Your task to perform on an android device: uninstall "DuckDuckGo Privacy Browser" Image 0: 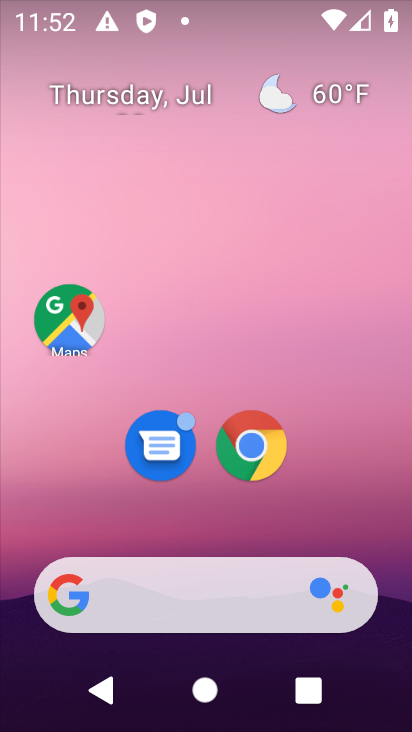
Step 0: drag from (354, 500) to (408, 2)
Your task to perform on an android device: uninstall "DuckDuckGo Privacy Browser" Image 1: 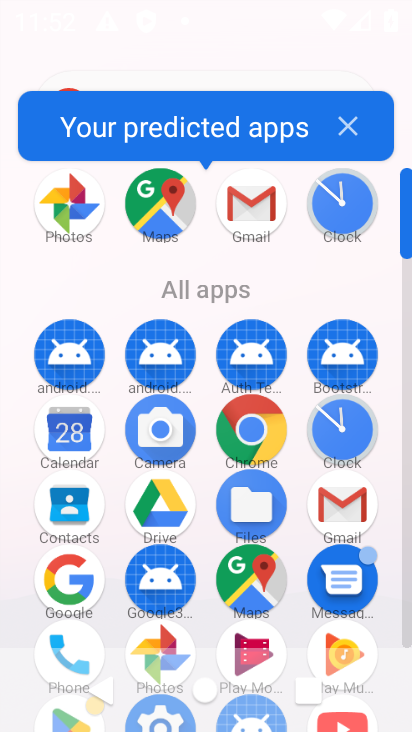
Step 1: click (404, 640)
Your task to perform on an android device: uninstall "DuckDuckGo Privacy Browser" Image 2: 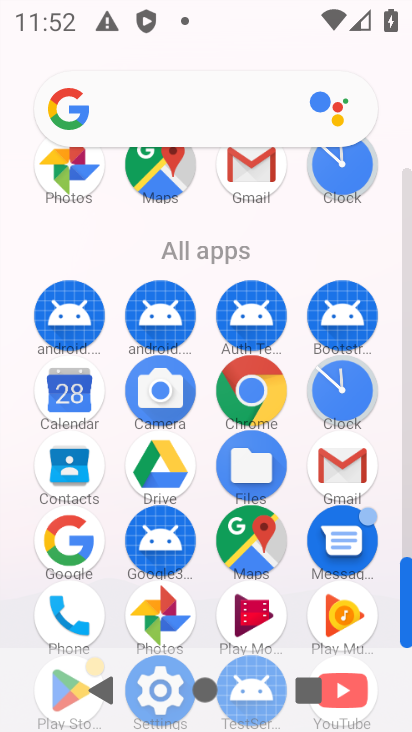
Step 2: drag from (404, 640) to (406, 695)
Your task to perform on an android device: uninstall "DuckDuckGo Privacy Browser" Image 3: 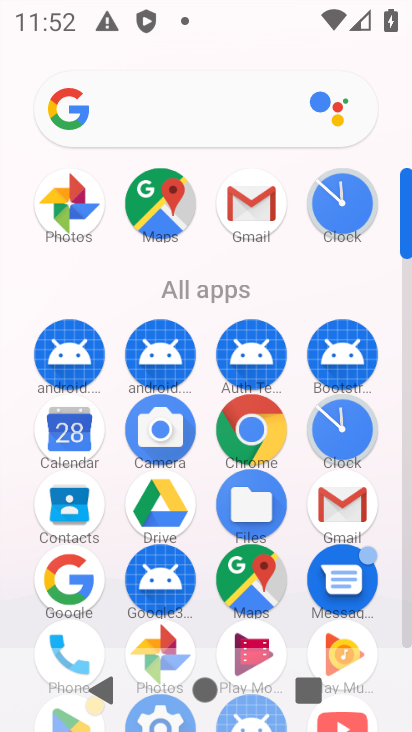
Step 3: click (405, 639)
Your task to perform on an android device: uninstall "DuckDuckGo Privacy Browser" Image 4: 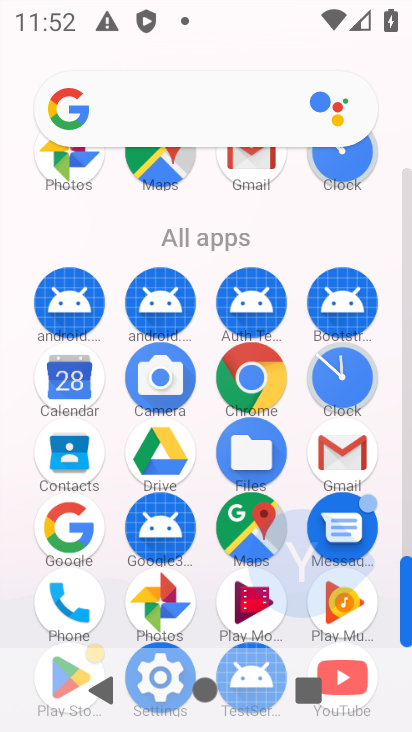
Step 4: click (405, 639)
Your task to perform on an android device: uninstall "DuckDuckGo Privacy Browser" Image 5: 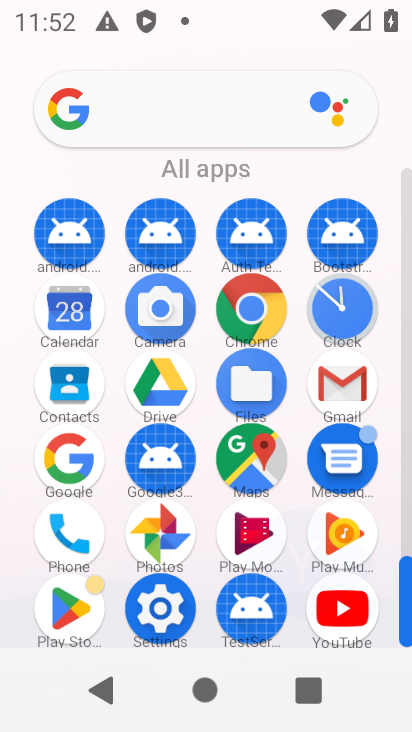
Step 5: click (405, 640)
Your task to perform on an android device: uninstall "DuckDuckGo Privacy Browser" Image 6: 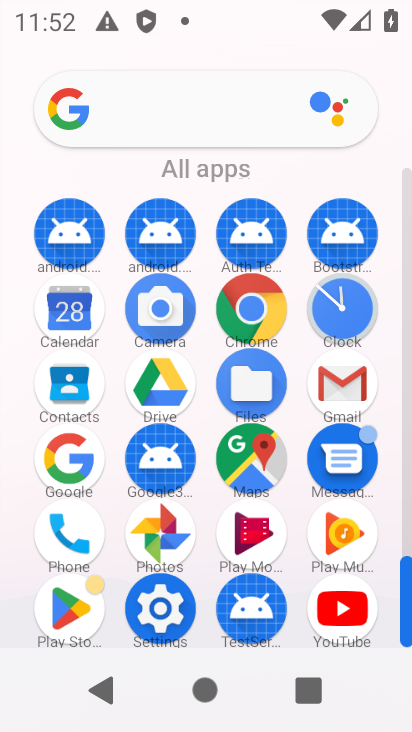
Step 6: click (249, 318)
Your task to perform on an android device: uninstall "DuckDuckGo Privacy Browser" Image 7: 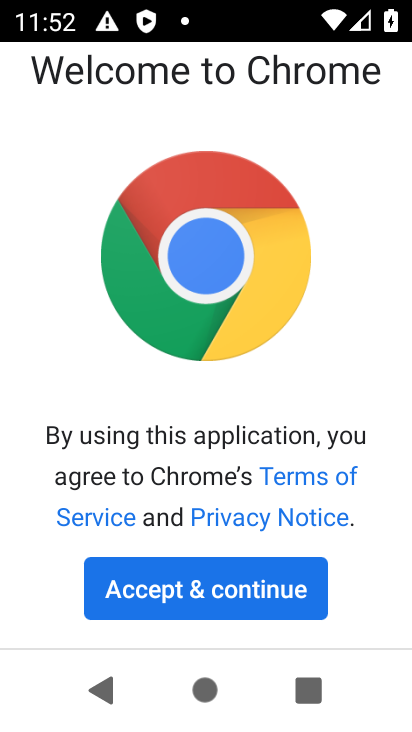
Step 7: click (236, 577)
Your task to perform on an android device: uninstall "DuckDuckGo Privacy Browser" Image 8: 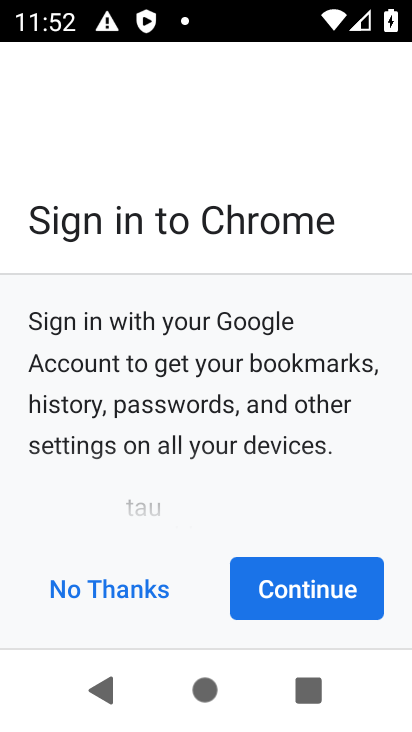
Step 8: click (282, 578)
Your task to perform on an android device: uninstall "DuckDuckGo Privacy Browser" Image 9: 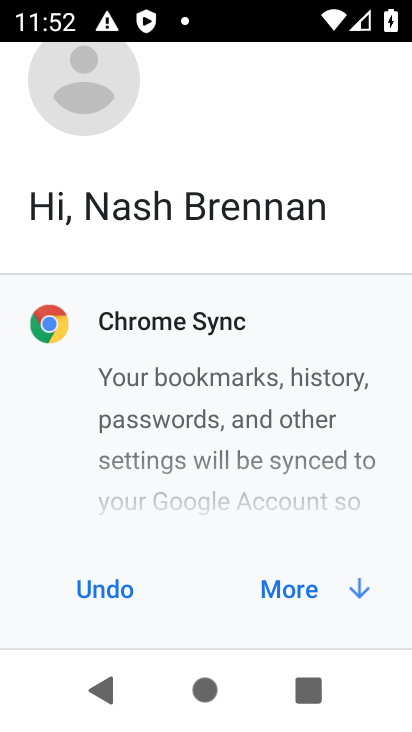
Step 9: click (282, 578)
Your task to perform on an android device: uninstall "DuckDuckGo Privacy Browser" Image 10: 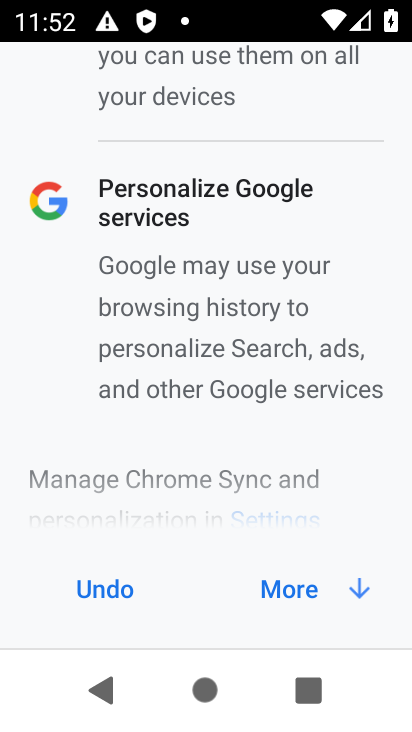
Step 10: click (282, 578)
Your task to perform on an android device: uninstall "DuckDuckGo Privacy Browser" Image 11: 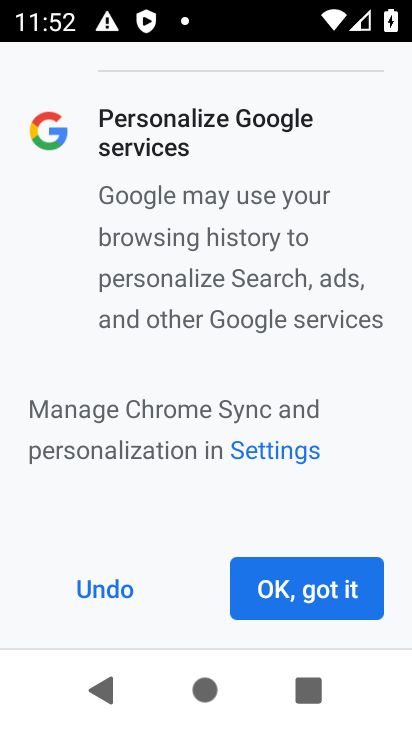
Step 11: click (282, 578)
Your task to perform on an android device: uninstall "DuckDuckGo Privacy Browser" Image 12: 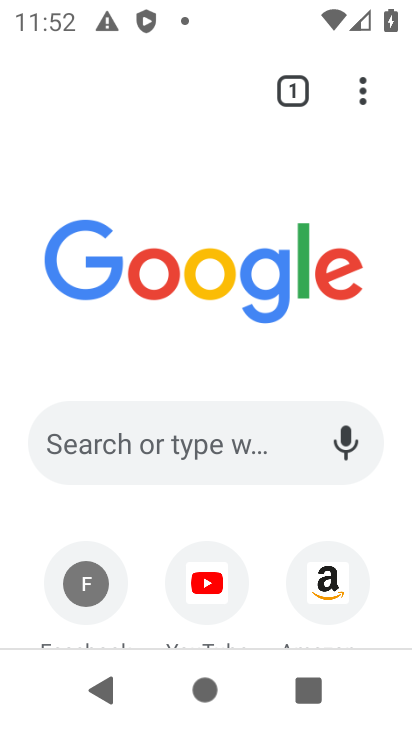
Step 12: click (258, 454)
Your task to perform on an android device: uninstall "DuckDuckGo Privacy Browser" Image 13: 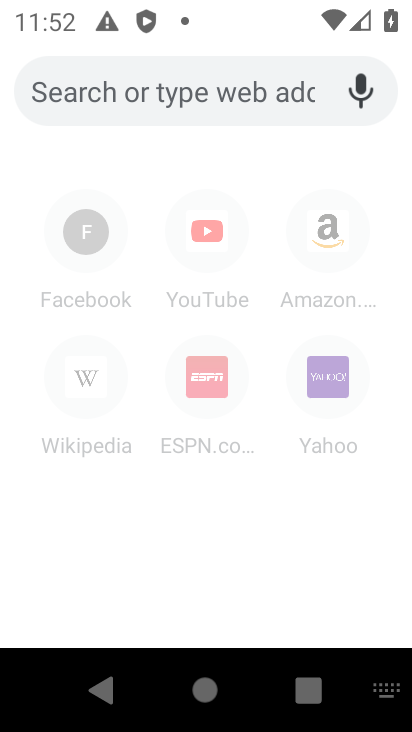
Step 13: type "DuckDuckGo Privacy Browser""
Your task to perform on an android device: uninstall "DuckDuckGo Privacy Browser" Image 14: 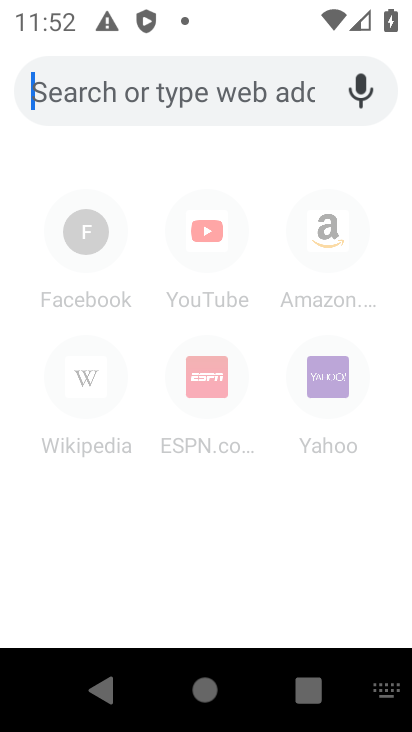
Step 14: press home button
Your task to perform on an android device: uninstall "DuckDuckGo Privacy Browser" Image 15: 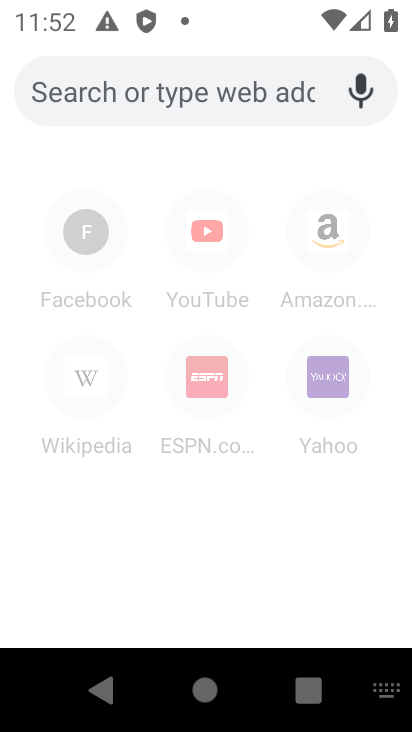
Step 15: press home button
Your task to perform on an android device: uninstall "DuckDuckGo Privacy Browser" Image 16: 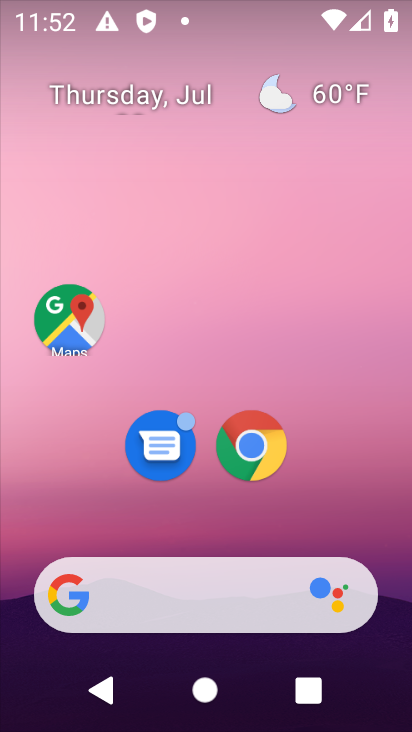
Step 16: drag from (346, 421) to (353, 5)
Your task to perform on an android device: uninstall "DuckDuckGo Privacy Browser" Image 17: 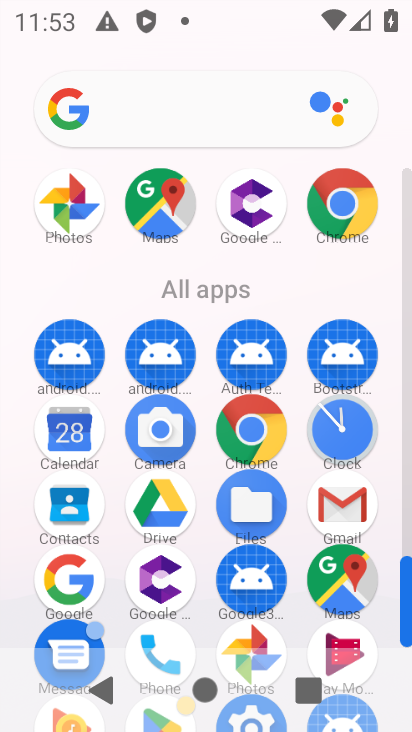
Step 17: drag from (403, 626) to (352, 712)
Your task to perform on an android device: uninstall "DuckDuckGo Privacy Browser" Image 18: 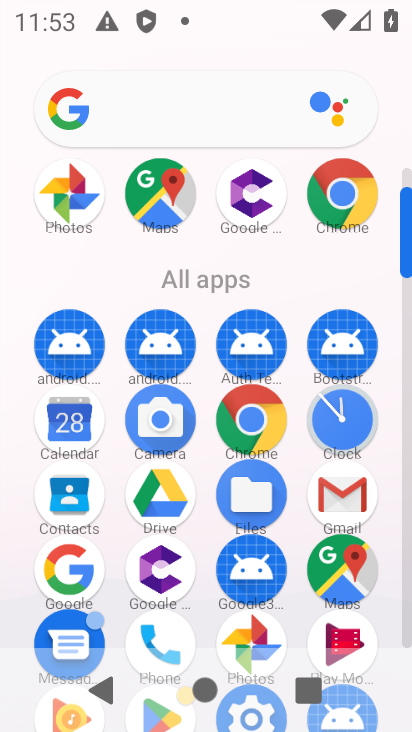
Step 18: click (405, 648)
Your task to perform on an android device: uninstall "DuckDuckGo Privacy Browser" Image 19: 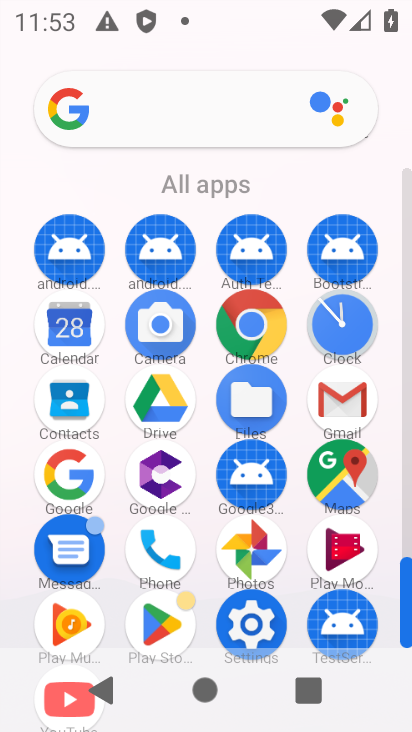
Step 19: click (172, 614)
Your task to perform on an android device: uninstall "DuckDuckGo Privacy Browser" Image 20: 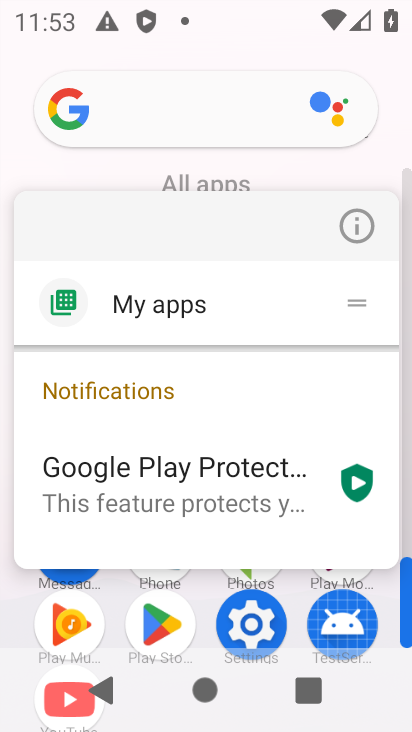
Step 20: click (160, 621)
Your task to perform on an android device: uninstall "DuckDuckGo Privacy Browser" Image 21: 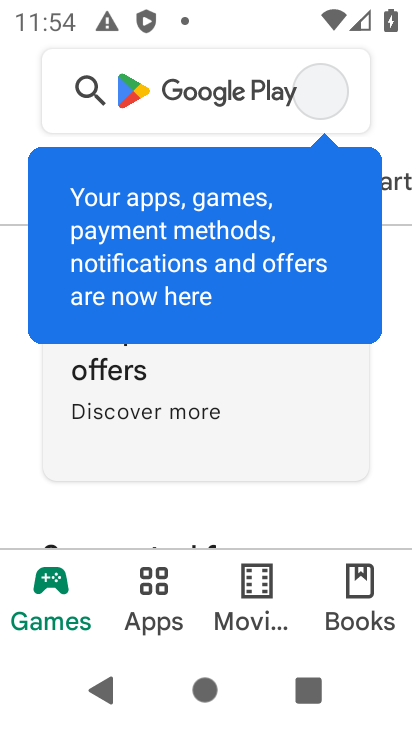
Step 21: click (172, 86)
Your task to perform on an android device: uninstall "DuckDuckGo Privacy Browser" Image 22: 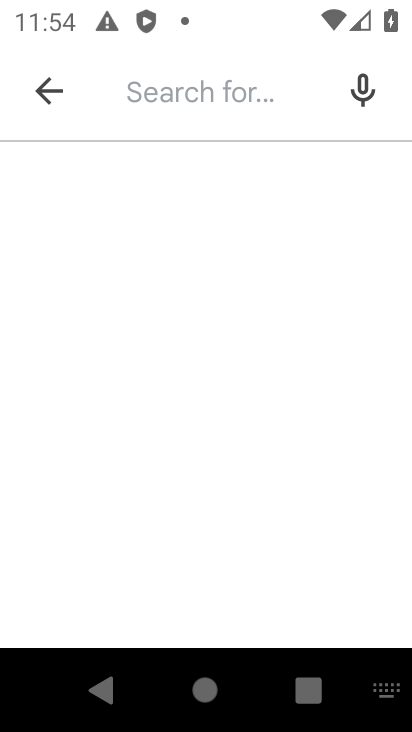
Step 22: type "DuckDuckGo Privacy Browser""
Your task to perform on an android device: uninstall "DuckDuckGo Privacy Browser" Image 23: 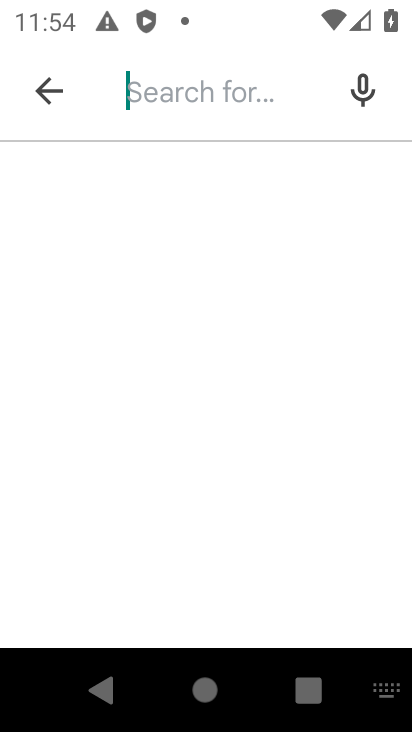
Step 23: type ""
Your task to perform on an android device: uninstall "DuckDuckGo Privacy Browser" Image 24: 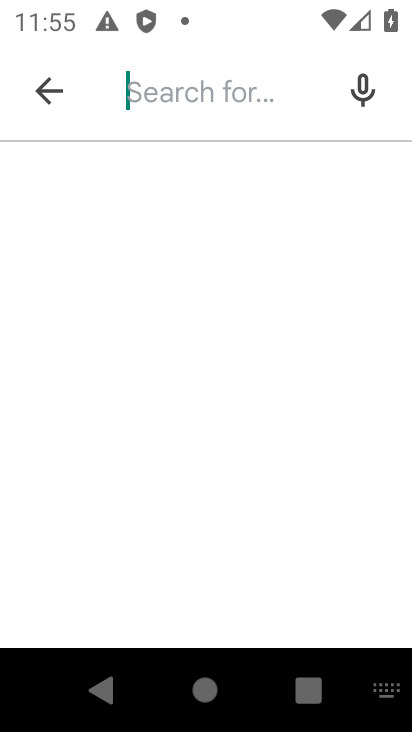
Step 24: type "DuckDuckGo Privacy Browser"
Your task to perform on an android device: uninstall "DuckDuckGo Privacy Browser" Image 25: 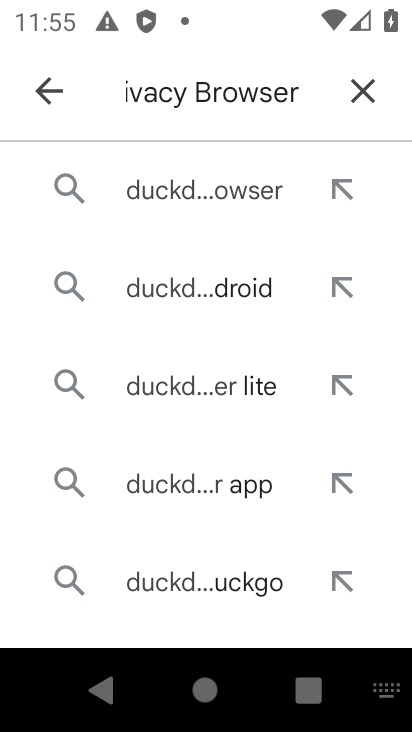
Step 25: click (140, 183)
Your task to perform on an android device: uninstall "DuckDuckGo Privacy Browser" Image 26: 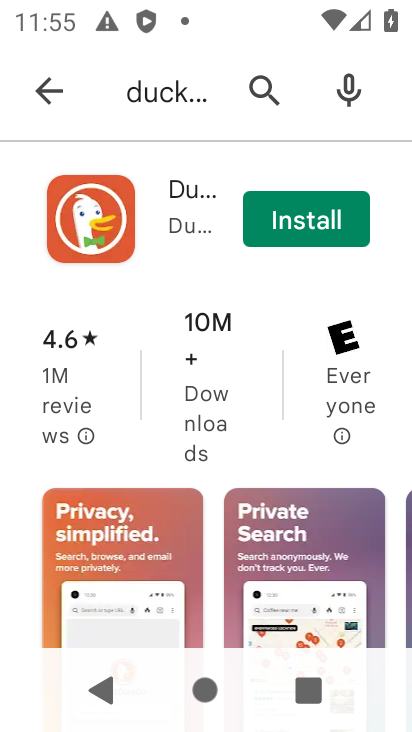
Step 26: click (317, 217)
Your task to perform on an android device: uninstall "DuckDuckGo Privacy Browser" Image 27: 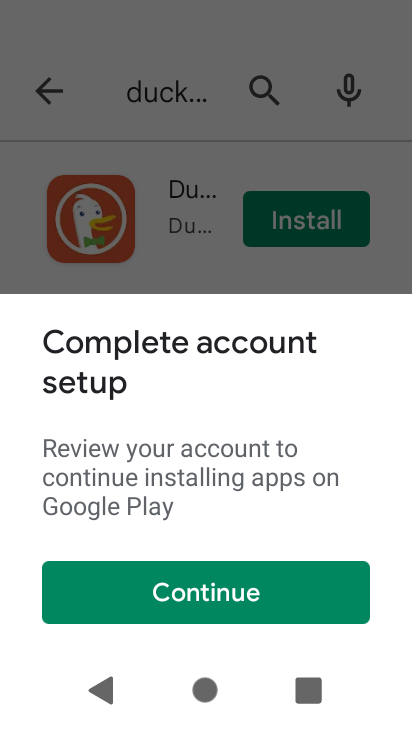
Step 27: click (193, 611)
Your task to perform on an android device: uninstall "DuckDuckGo Privacy Browser" Image 28: 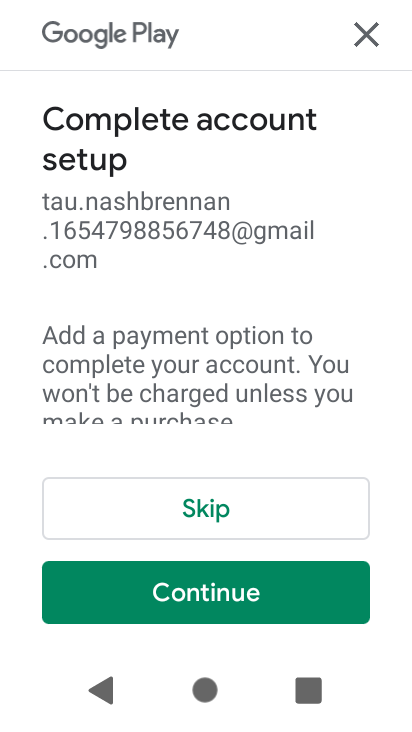
Step 28: click (176, 503)
Your task to perform on an android device: uninstall "DuckDuckGo Privacy Browser" Image 29: 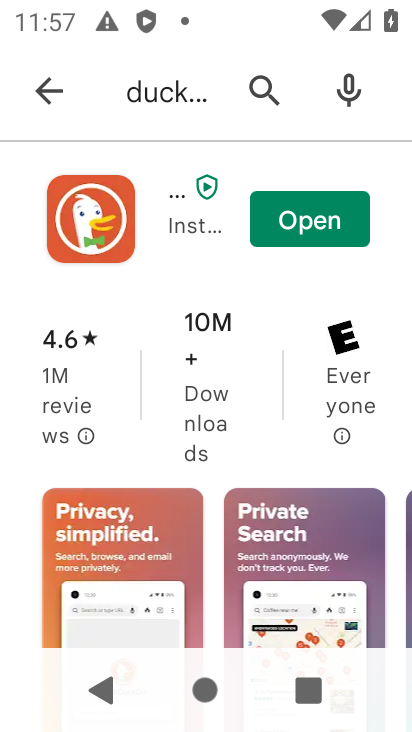
Step 29: click (90, 201)
Your task to perform on an android device: uninstall "DuckDuckGo Privacy Browser" Image 30: 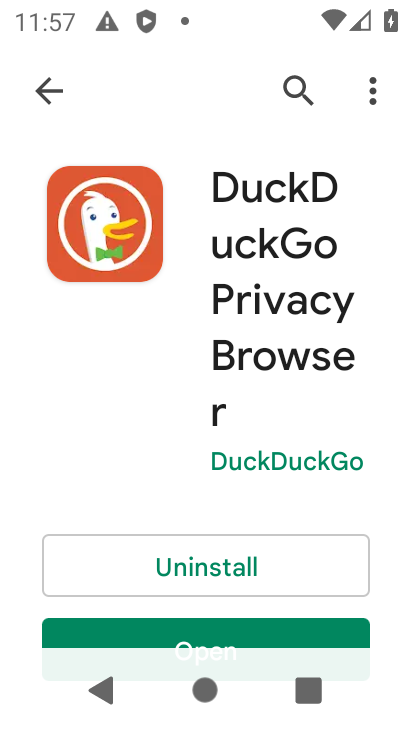
Step 30: click (137, 575)
Your task to perform on an android device: uninstall "DuckDuckGo Privacy Browser" Image 31: 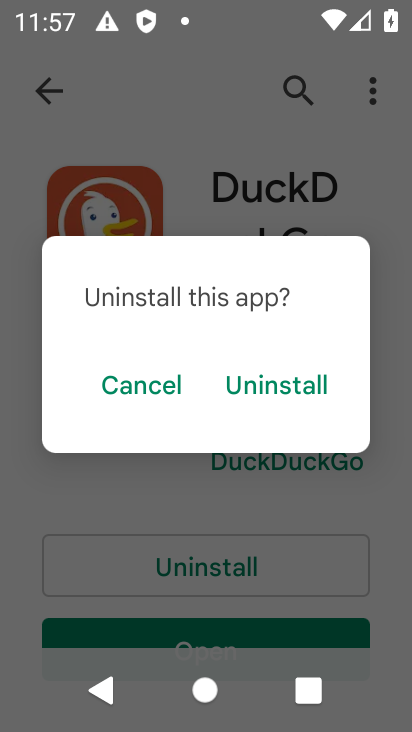
Step 31: click (293, 374)
Your task to perform on an android device: uninstall "DuckDuckGo Privacy Browser" Image 32: 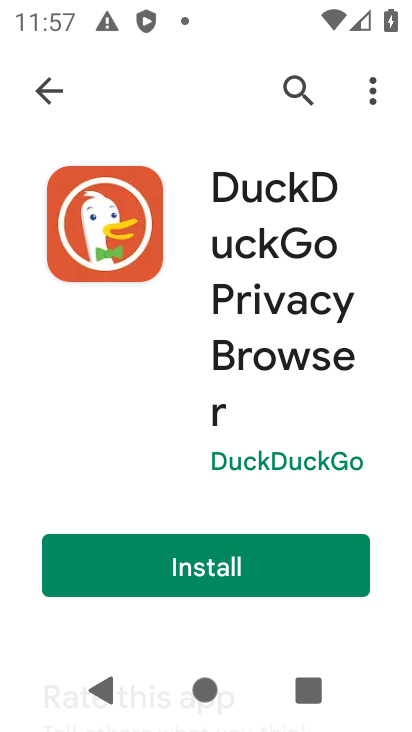
Step 32: task complete